Your task to perform on an android device: Open Android settings Image 0: 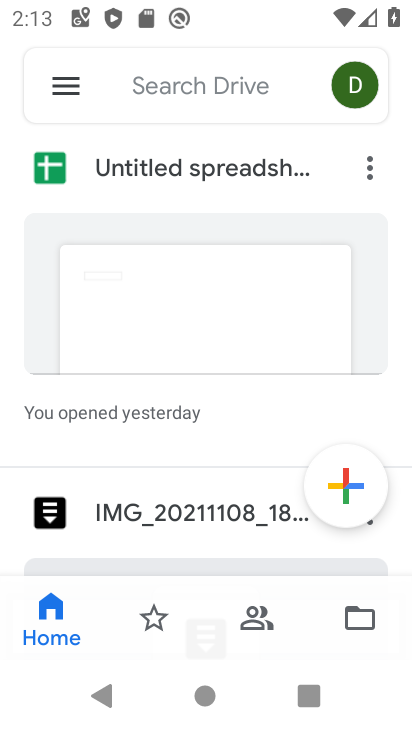
Step 0: press home button
Your task to perform on an android device: Open Android settings Image 1: 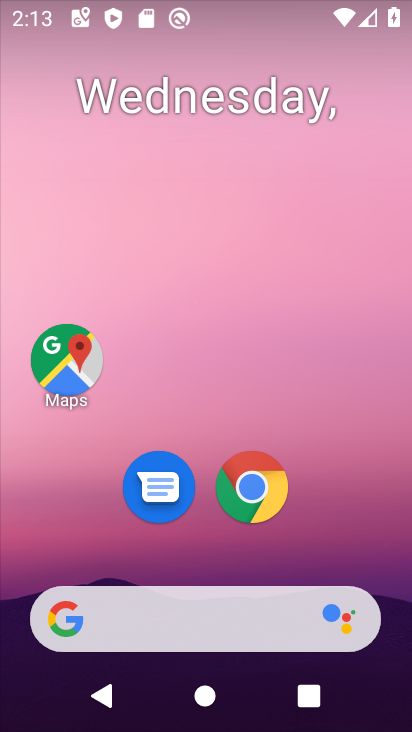
Step 1: drag from (327, 506) to (202, 86)
Your task to perform on an android device: Open Android settings Image 2: 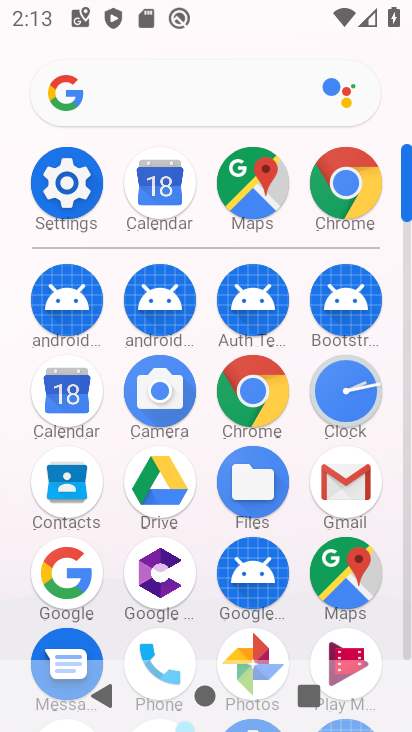
Step 2: click (67, 181)
Your task to perform on an android device: Open Android settings Image 3: 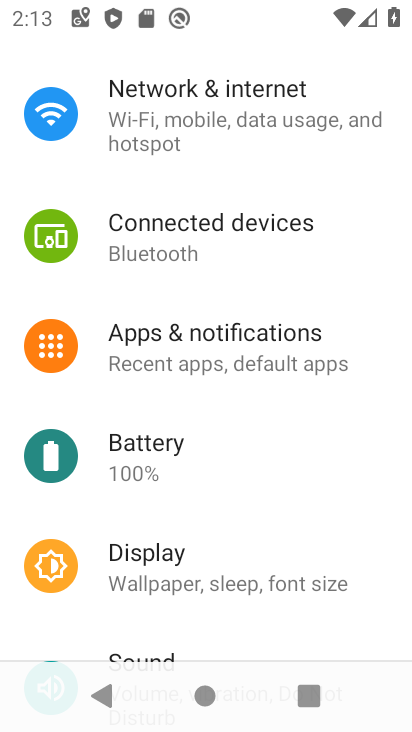
Step 3: task complete